Your task to perform on an android device: Search for the best rated kitchen reno kits on Lowes.com Image 0: 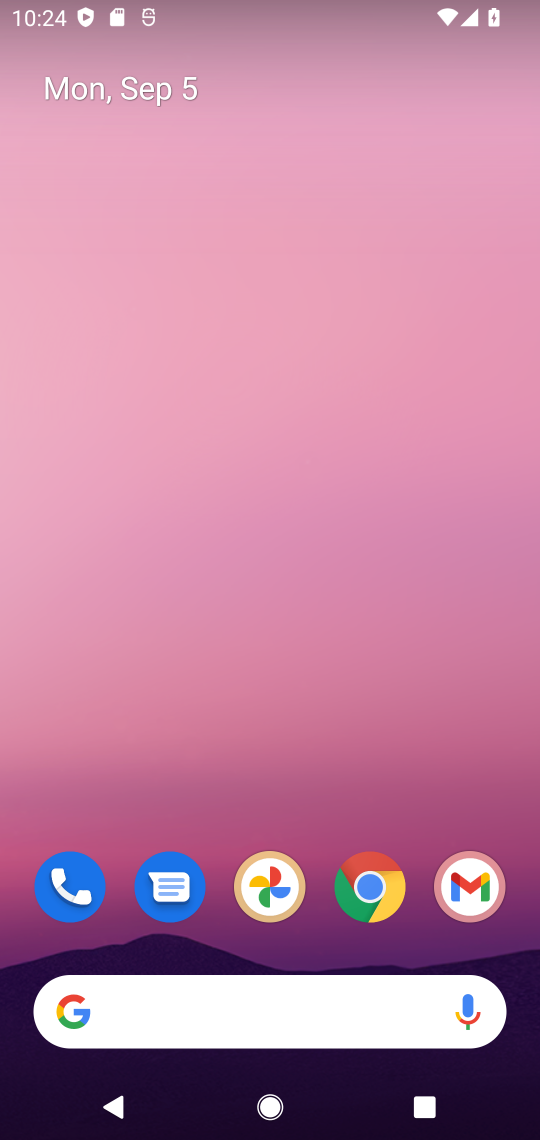
Step 0: click (380, 878)
Your task to perform on an android device: Search for the best rated kitchen reno kits on Lowes.com Image 1: 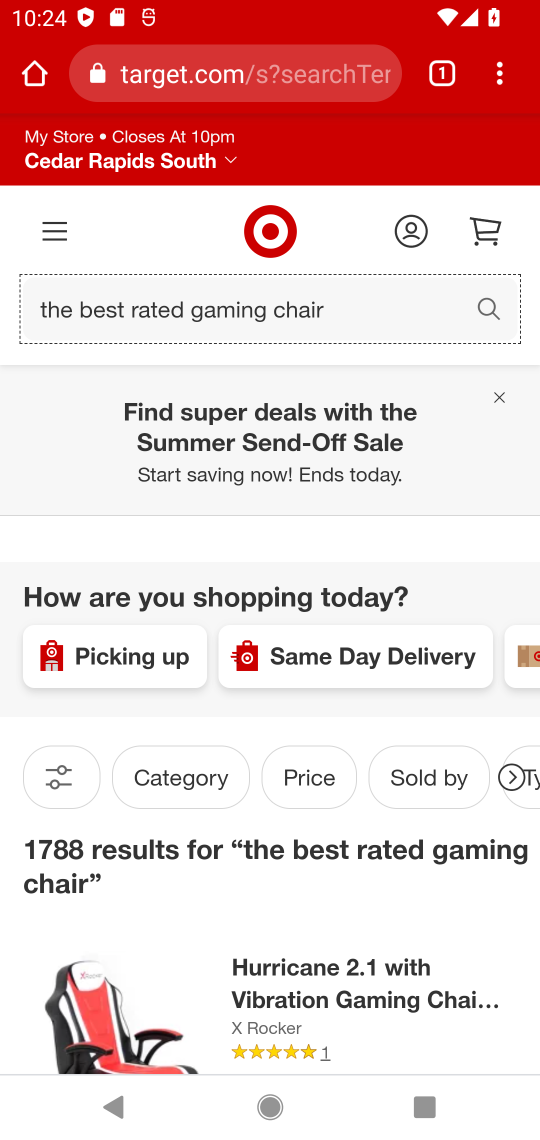
Step 1: click (243, 69)
Your task to perform on an android device: Search for the best rated kitchen reno kits on Lowes.com Image 2: 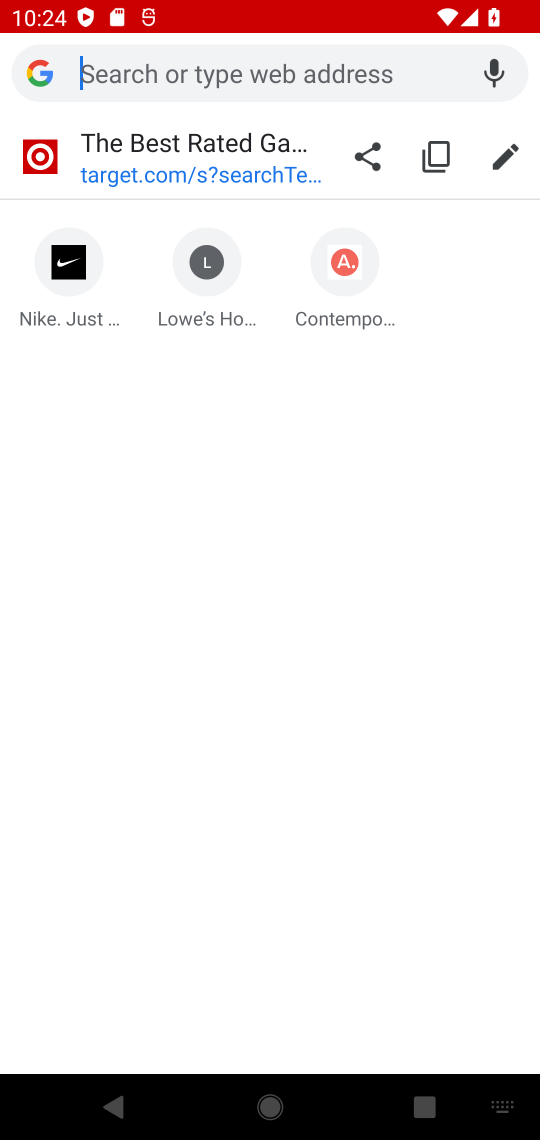
Step 2: type "lowes.com"
Your task to perform on an android device: Search for the best rated kitchen reno kits on Lowes.com Image 3: 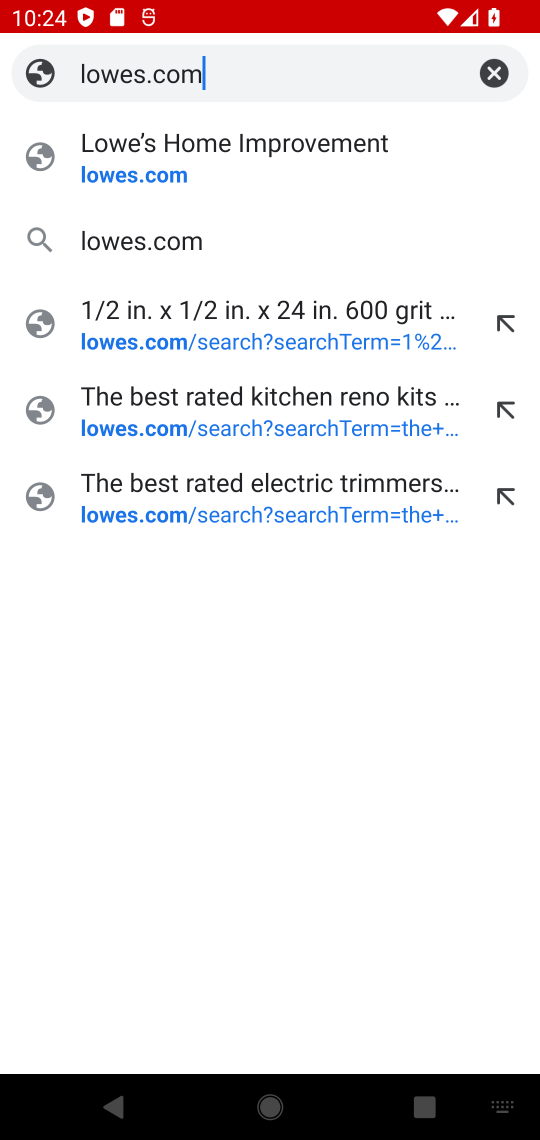
Step 3: click (162, 170)
Your task to perform on an android device: Search for the best rated kitchen reno kits on Lowes.com Image 4: 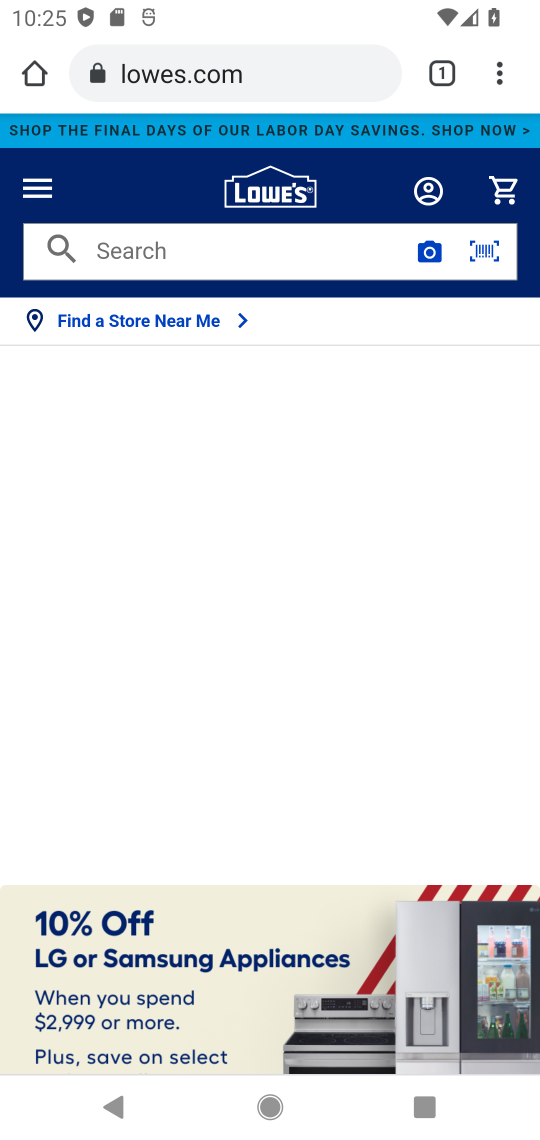
Step 4: click (297, 262)
Your task to perform on an android device: Search for the best rated kitchen reno kits on Lowes.com Image 5: 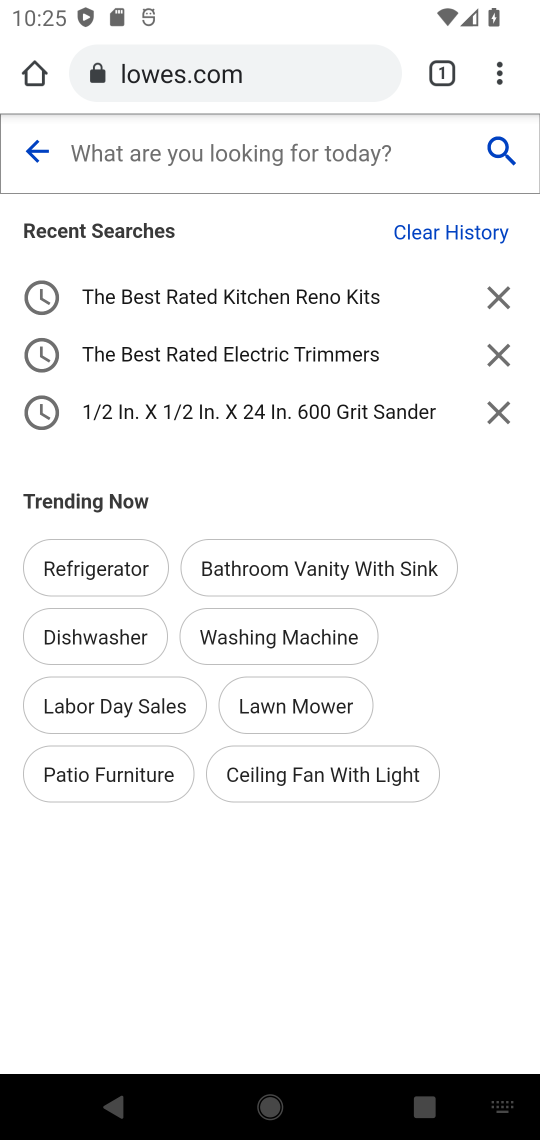
Step 5: type "the best rated gaming chair"
Your task to perform on an android device: Search for the best rated kitchen reno kits on Lowes.com Image 6: 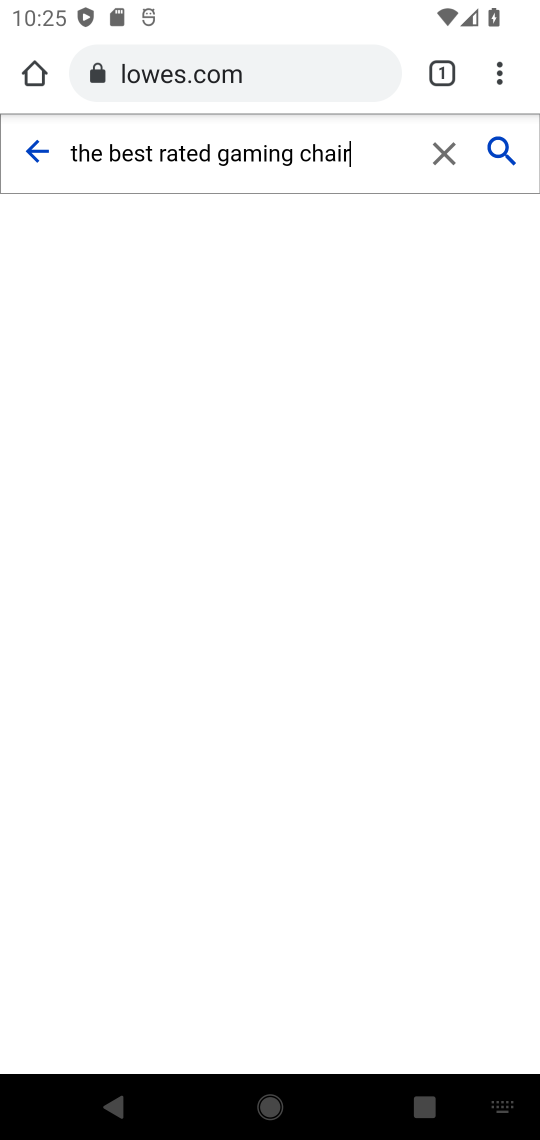
Step 6: click (232, 332)
Your task to perform on an android device: Search for the best rated kitchen reno kits on Lowes.com Image 7: 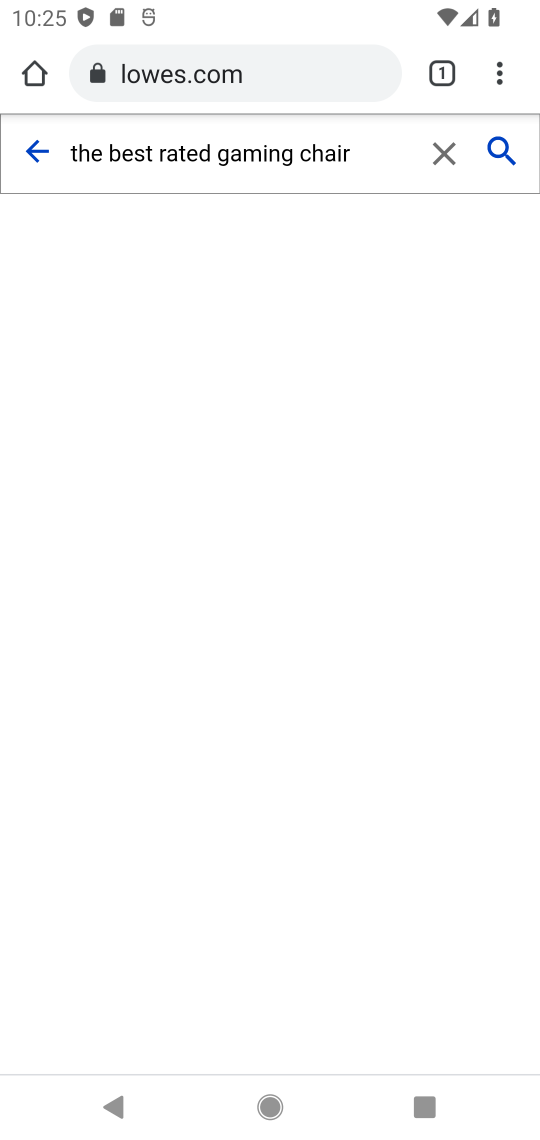
Step 7: click (293, 241)
Your task to perform on an android device: Search for the best rated kitchen reno kits on Lowes.com Image 8: 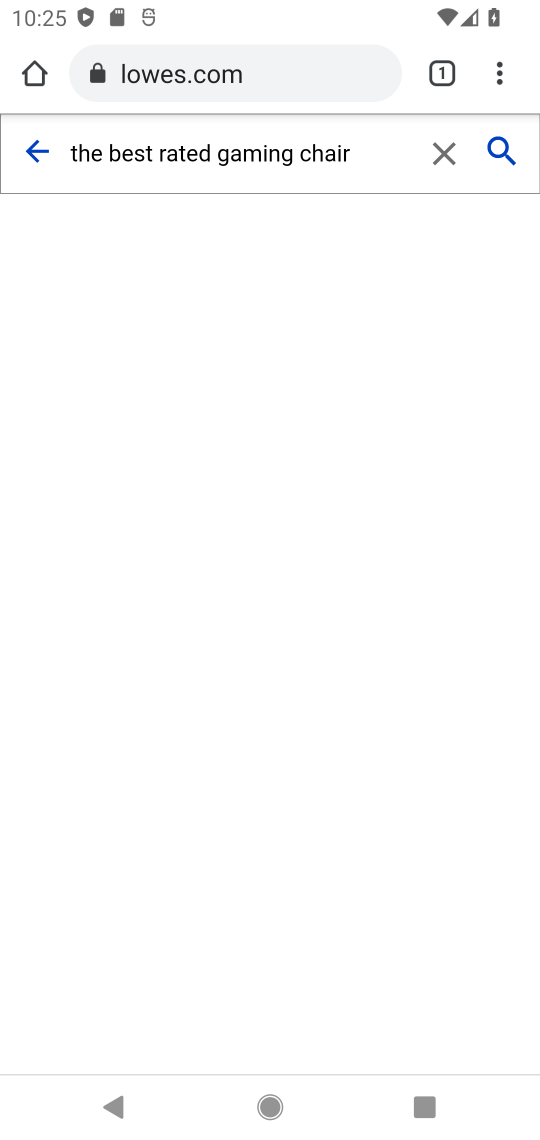
Step 8: click (508, 161)
Your task to perform on an android device: Search for the best rated kitchen reno kits on Lowes.com Image 9: 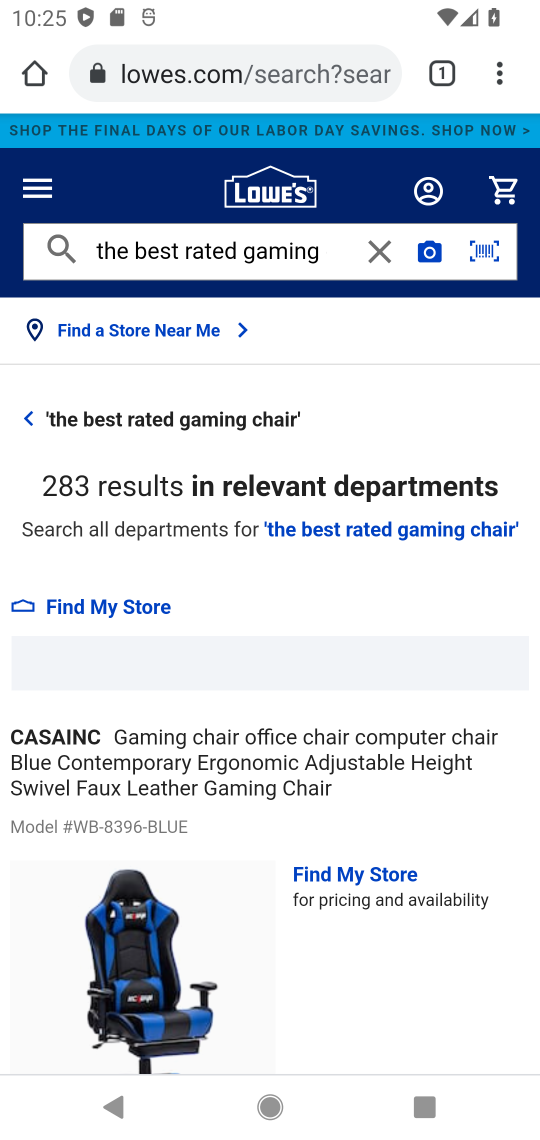
Step 9: task complete